Your task to perform on an android device: install app "Clock" Image 0: 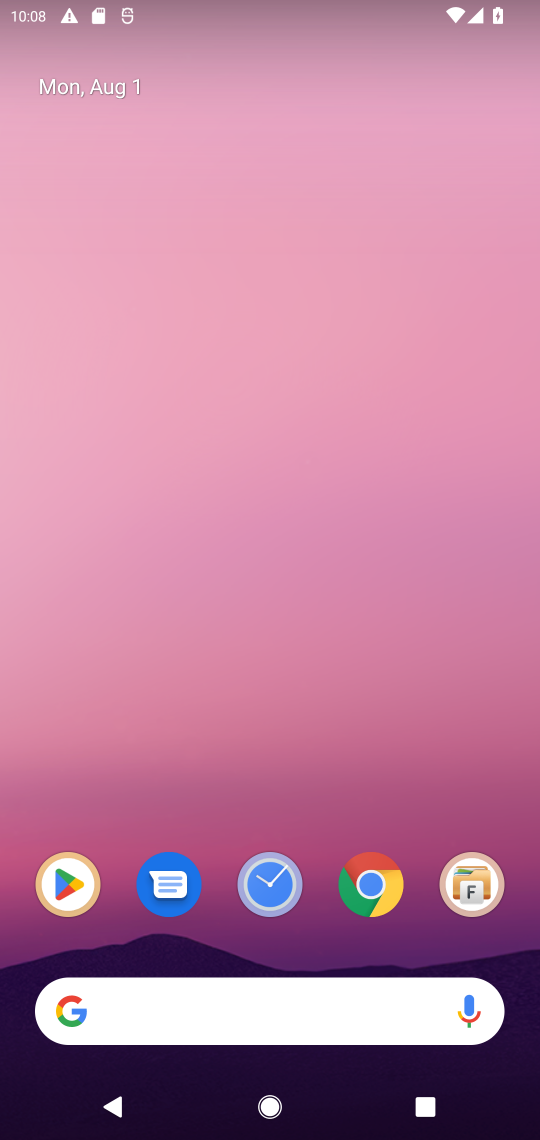
Step 0: click (62, 883)
Your task to perform on an android device: install app "Clock" Image 1: 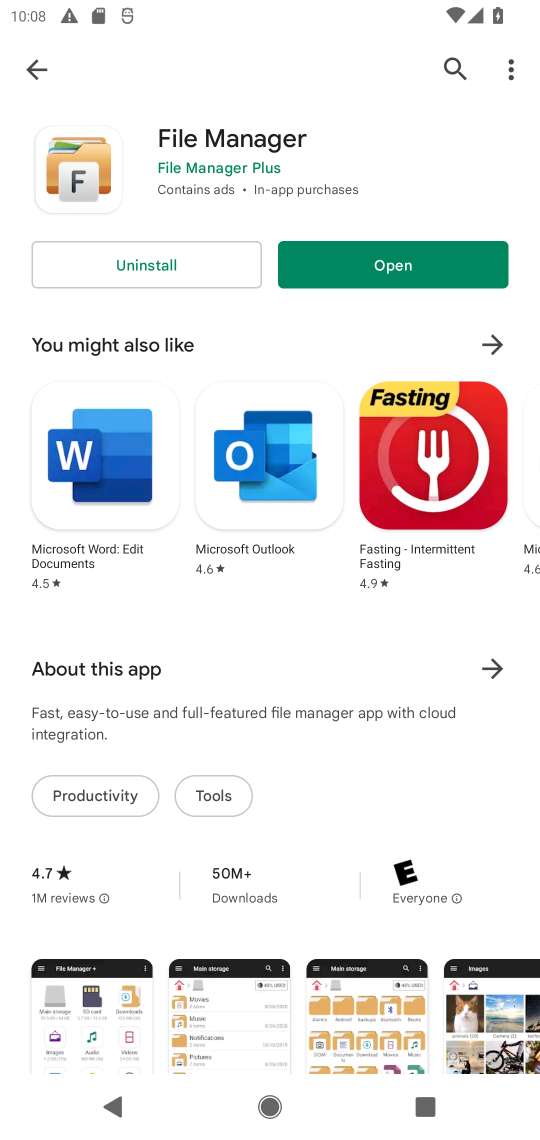
Step 1: click (440, 57)
Your task to perform on an android device: install app "Clock" Image 2: 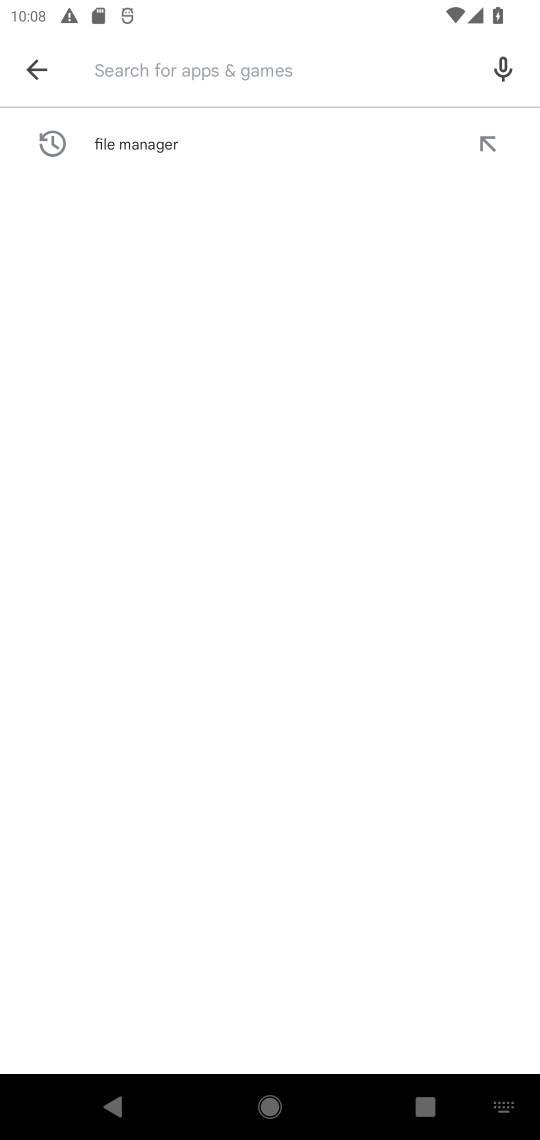
Step 2: type "clock"
Your task to perform on an android device: install app "Clock" Image 3: 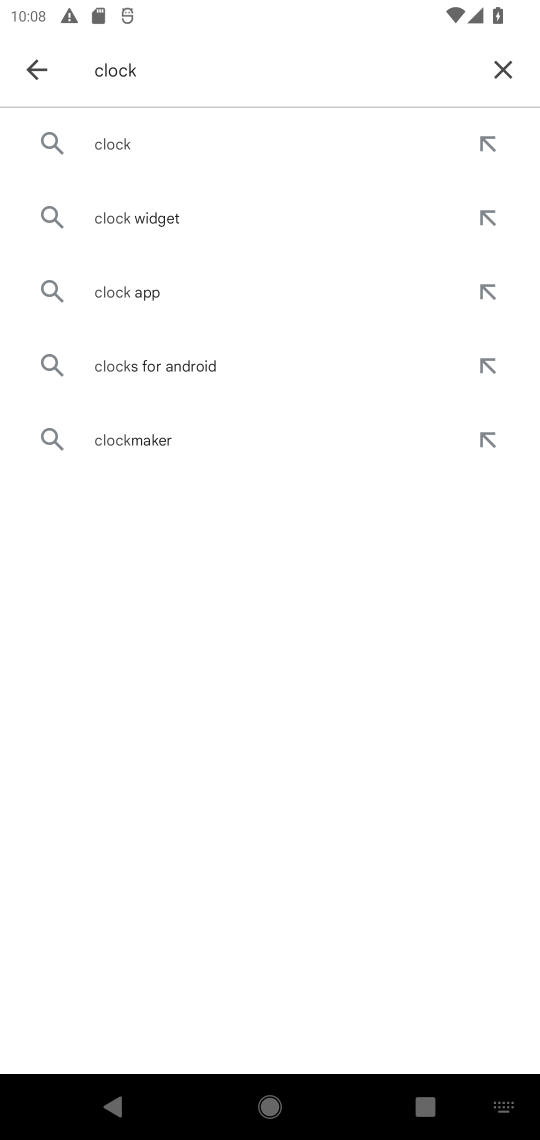
Step 3: click (105, 148)
Your task to perform on an android device: install app "Clock" Image 4: 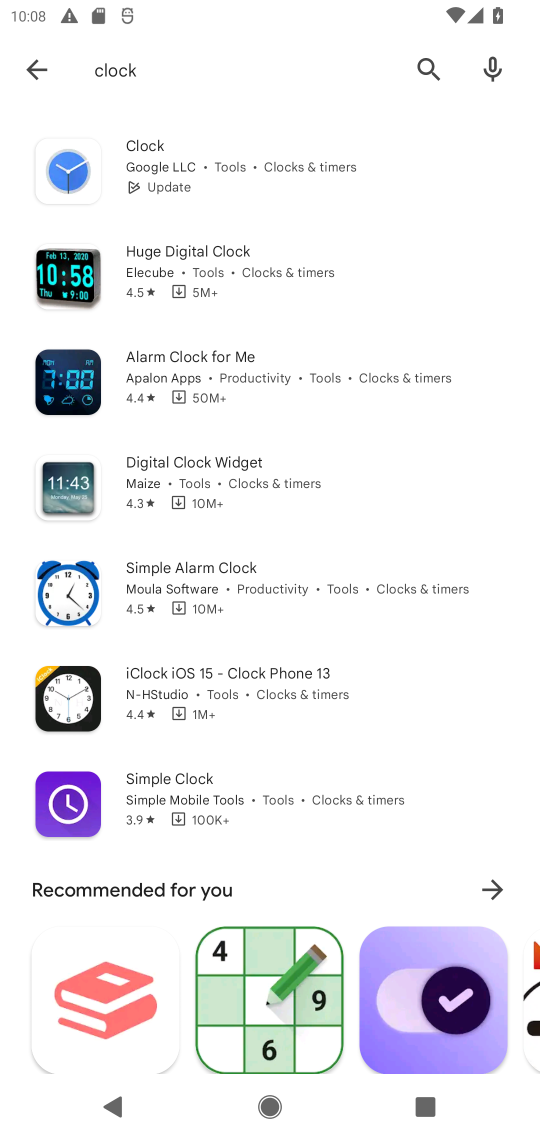
Step 4: click (233, 158)
Your task to perform on an android device: install app "Clock" Image 5: 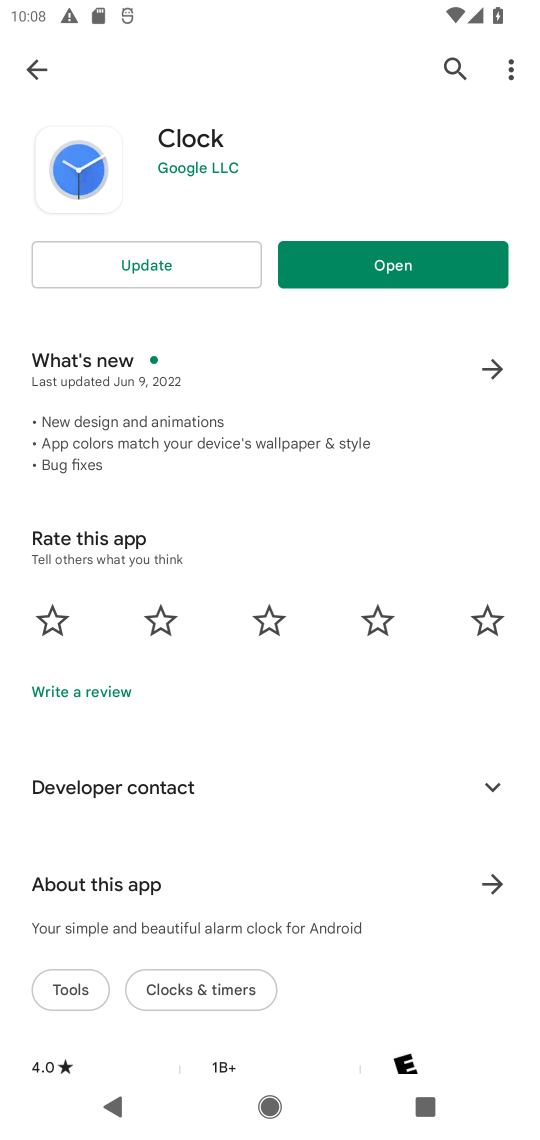
Step 5: task complete